Your task to perform on an android device: add a contact in the contacts app Image 0: 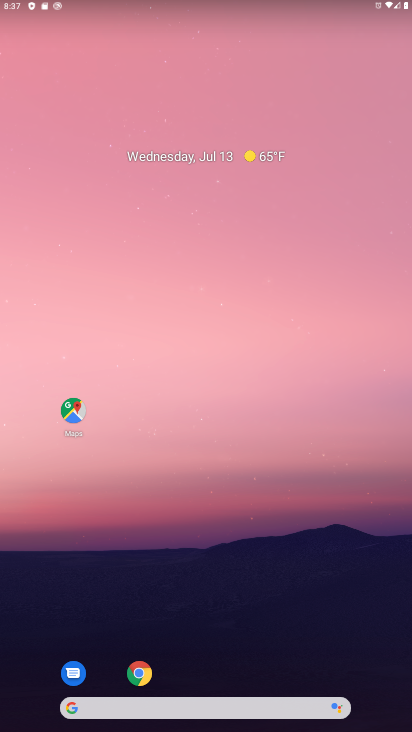
Step 0: drag from (198, 699) to (258, 147)
Your task to perform on an android device: add a contact in the contacts app Image 1: 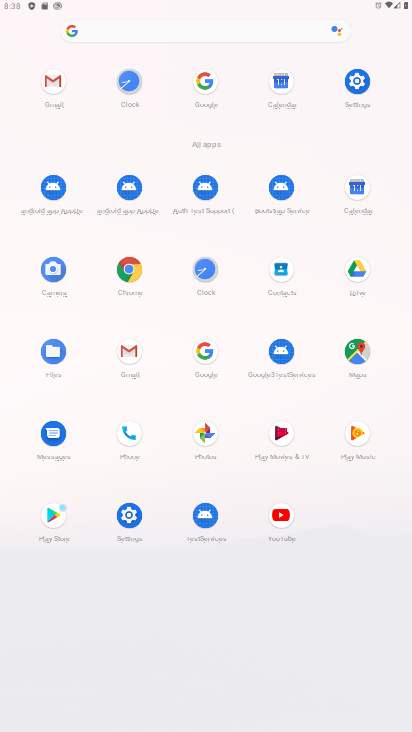
Step 1: click (283, 268)
Your task to perform on an android device: add a contact in the contacts app Image 2: 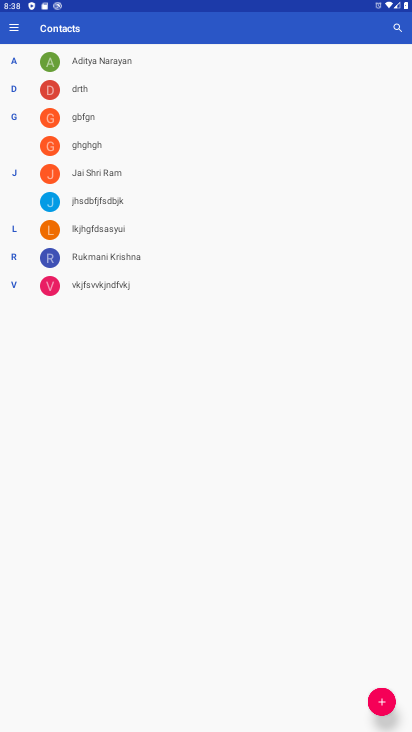
Step 2: click (383, 701)
Your task to perform on an android device: add a contact in the contacts app Image 3: 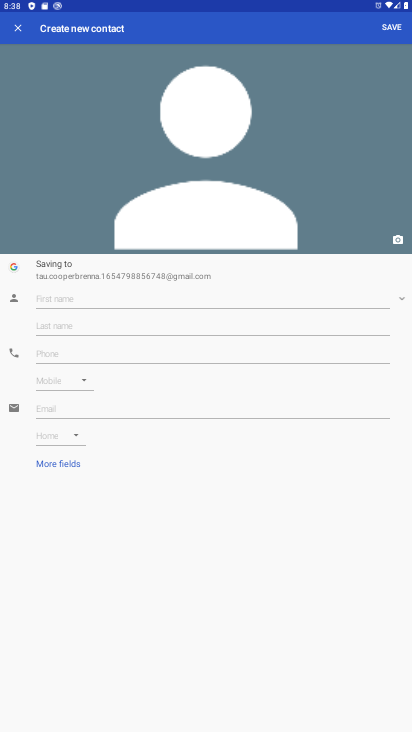
Step 3: click (150, 298)
Your task to perform on an android device: add a contact in the contacts app Image 4: 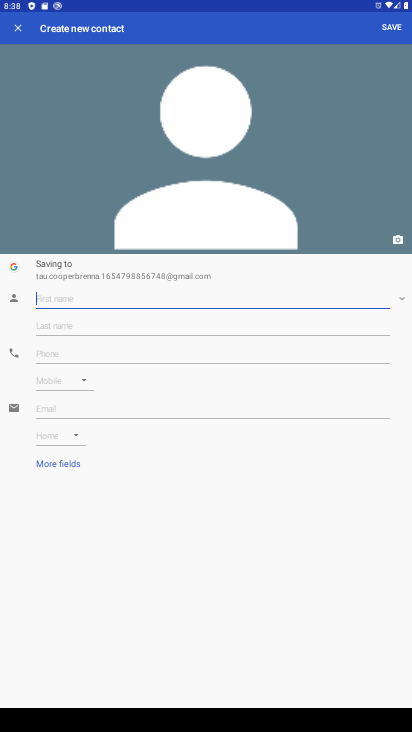
Step 4: type "Chandrapratap"
Your task to perform on an android device: add a contact in the contacts app Image 5: 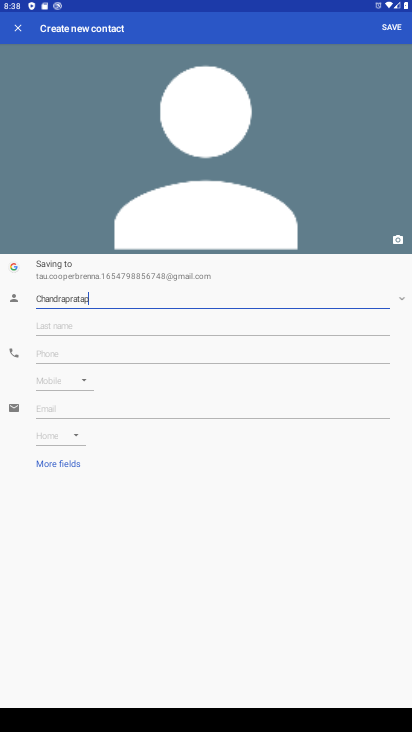
Step 5: click (220, 325)
Your task to perform on an android device: add a contact in the contacts app Image 6: 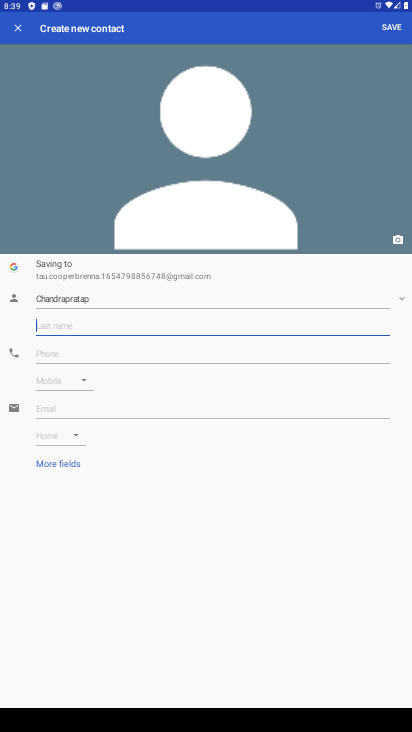
Step 6: type "Raghav"
Your task to perform on an android device: add a contact in the contacts app Image 7: 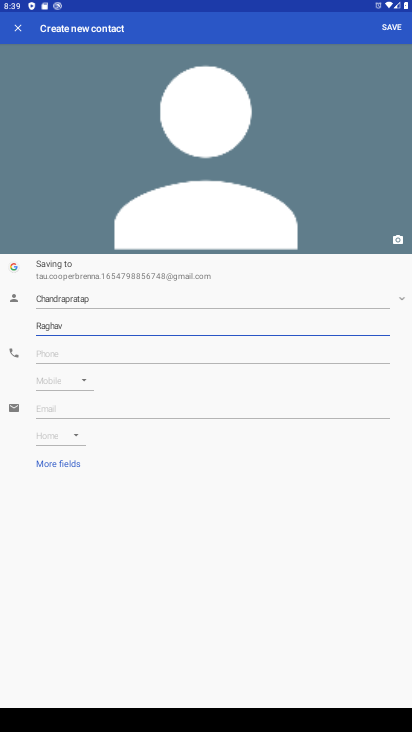
Step 7: click (76, 347)
Your task to perform on an android device: add a contact in the contacts app Image 8: 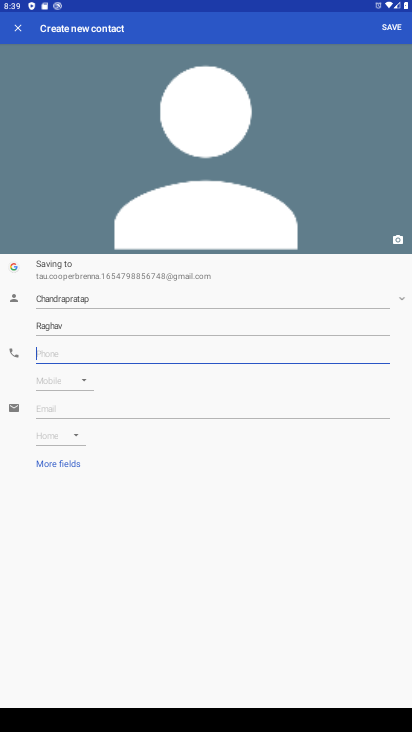
Step 8: type "0998877665544"
Your task to perform on an android device: add a contact in the contacts app Image 9: 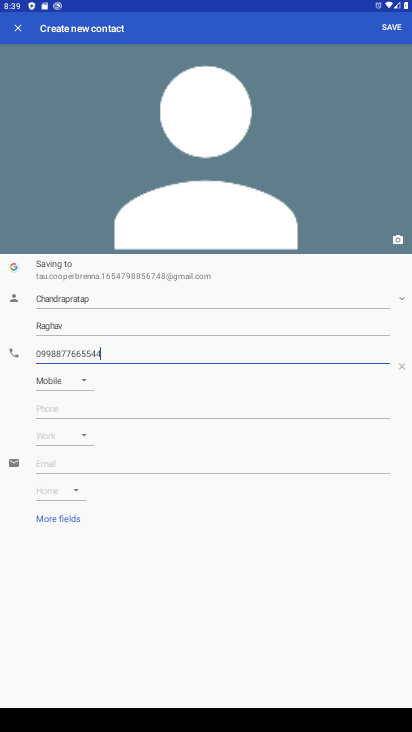
Step 9: type ""
Your task to perform on an android device: add a contact in the contacts app Image 10: 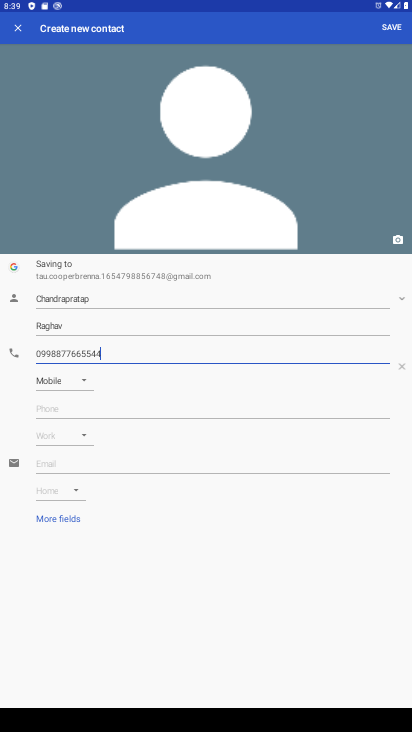
Step 10: click (393, 29)
Your task to perform on an android device: add a contact in the contacts app Image 11: 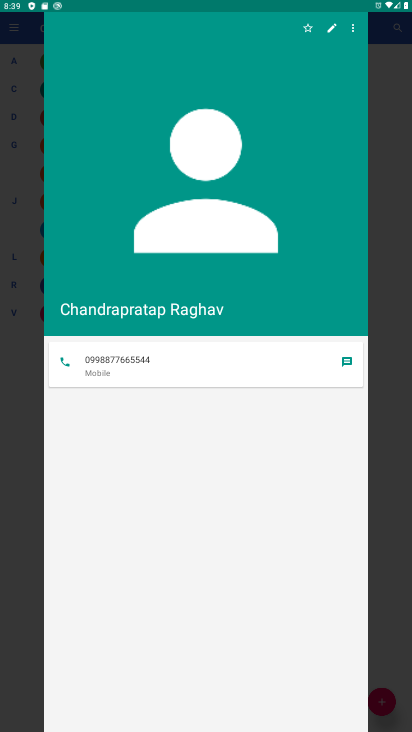
Step 11: task complete